Your task to perform on an android device: check android version Image 0: 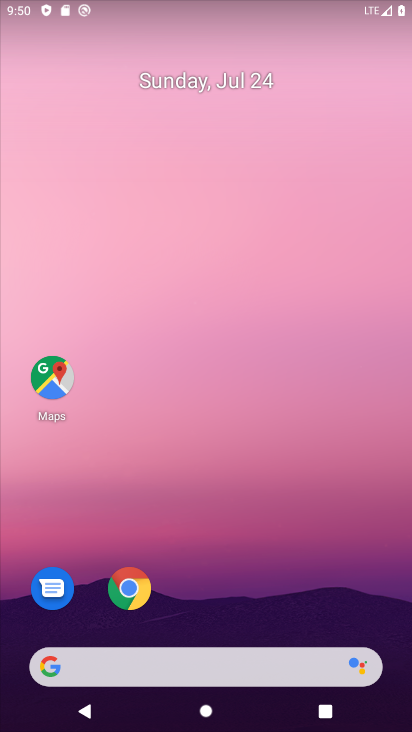
Step 0: drag from (146, 713) to (157, 73)
Your task to perform on an android device: check android version Image 1: 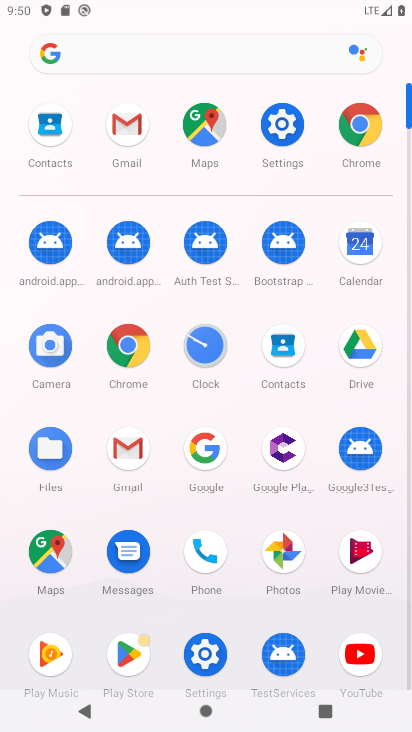
Step 1: click (293, 126)
Your task to perform on an android device: check android version Image 2: 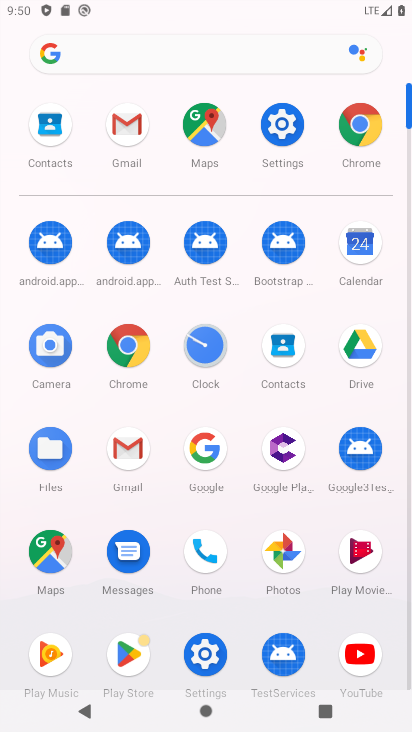
Step 2: click (293, 126)
Your task to perform on an android device: check android version Image 3: 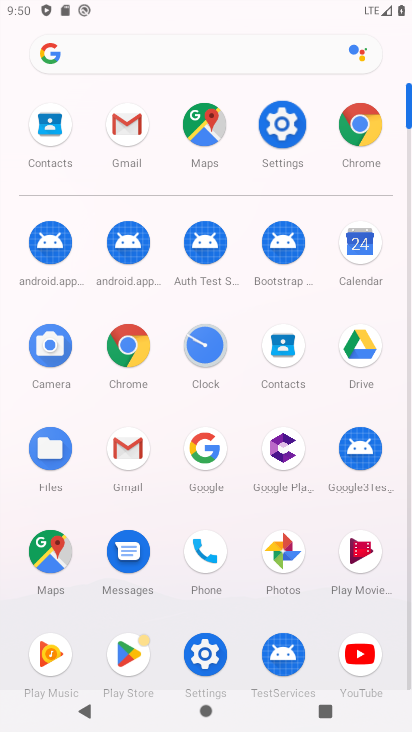
Step 3: click (293, 126)
Your task to perform on an android device: check android version Image 4: 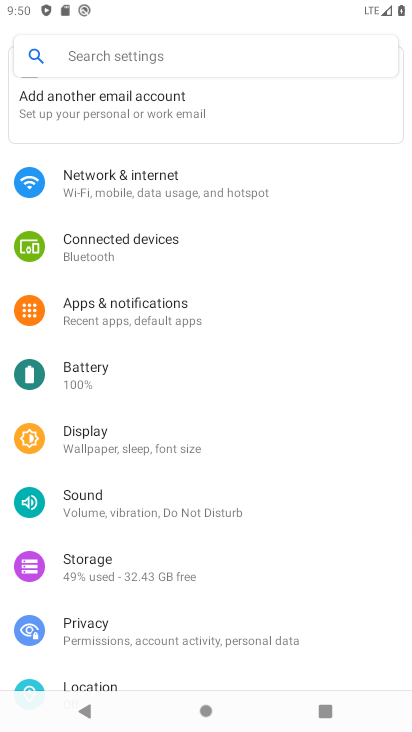
Step 4: drag from (185, 470) to (263, 18)
Your task to perform on an android device: check android version Image 5: 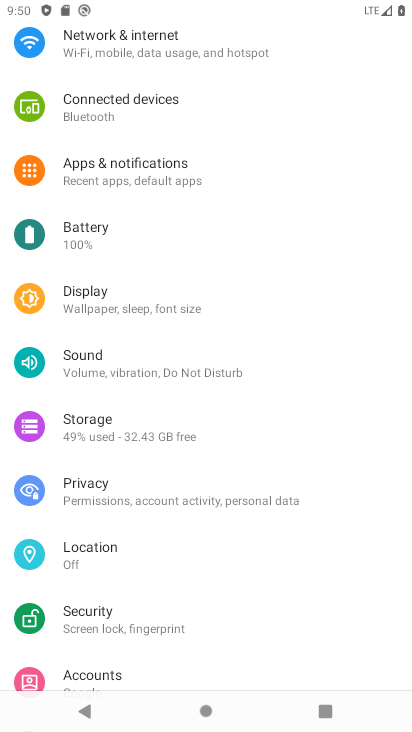
Step 5: drag from (225, 611) to (146, 26)
Your task to perform on an android device: check android version Image 6: 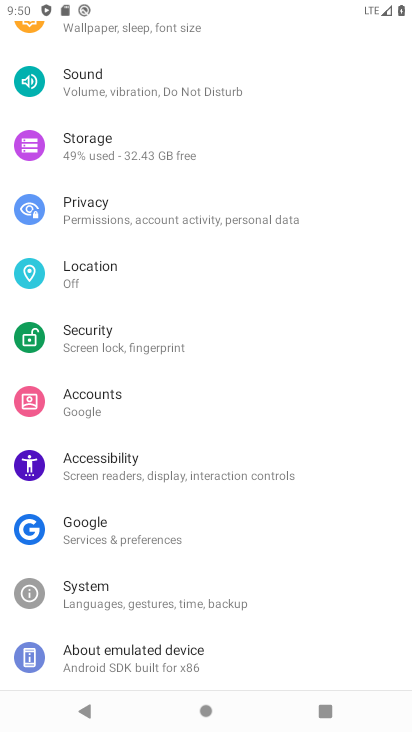
Step 6: click (98, 654)
Your task to perform on an android device: check android version Image 7: 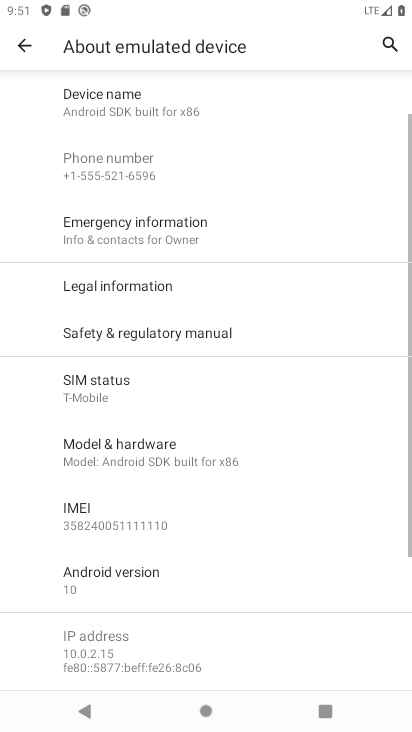
Step 7: task complete